Your task to perform on an android device: Open calendar and show me the first week of next month Image 0: 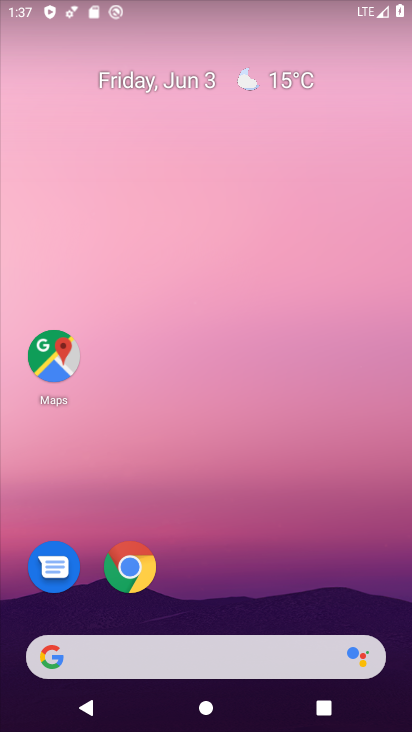
Step 0: drag from (170, 635) to (227, 151)
Your task to perform on an android device: Open calendar and show me the first week of next month Image 1: 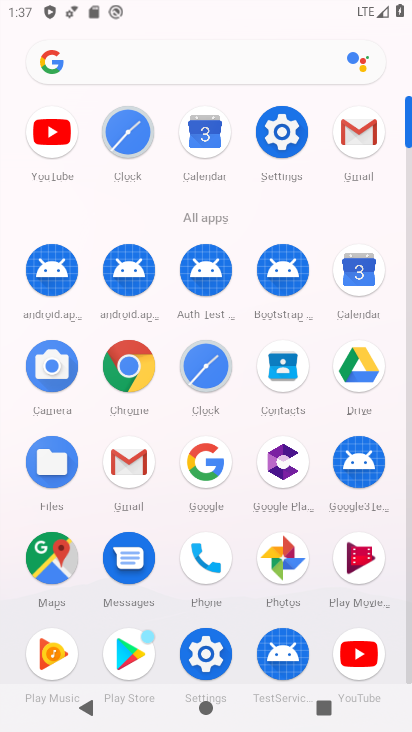
Step 1: click (203, 143)
Your task to perform on an android device: Open calendar and show me the first week of next month Image 2: 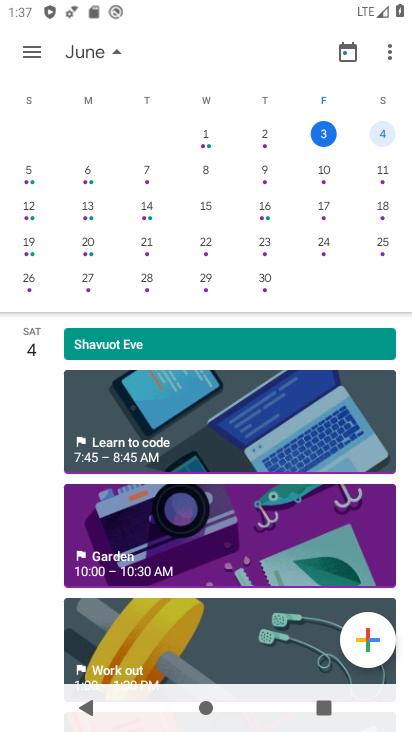
Step 2: click (336, 260)
Your task to perform on an android device: Open calendar and show me the first week of next month Image 3: 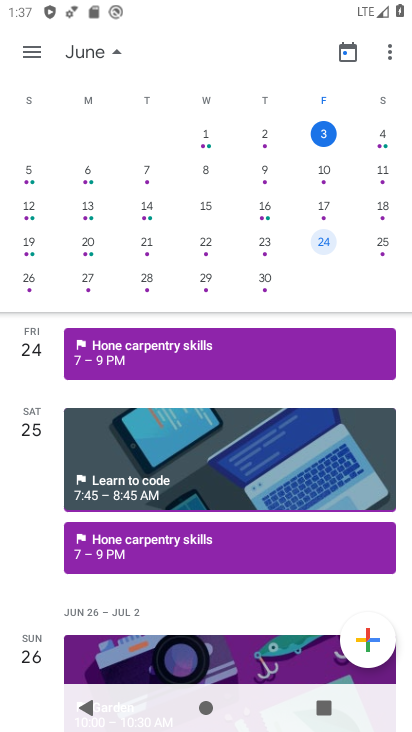
Step 3: drag from (331, 214) to (16, 225)
Your task to perform on an android device: Open calendar and show me the first week of next month Image 4: 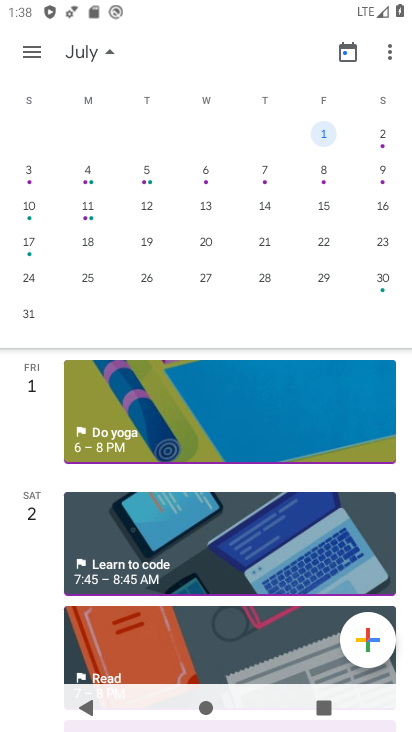
Step 4: click (328, 131)
Your task to perform on an android device: Open calendar and show me the first week of next month Image 5: 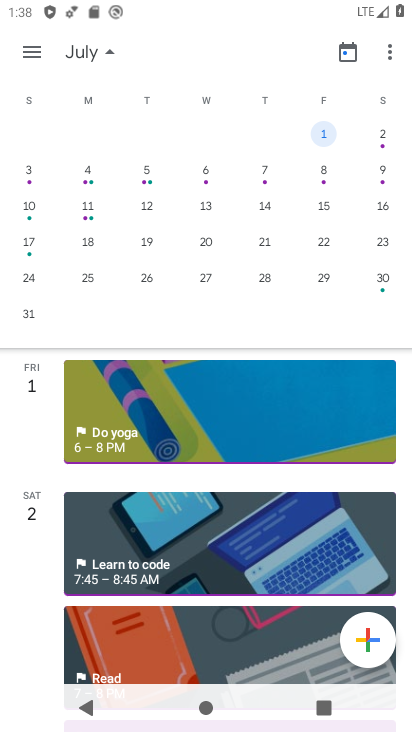
Step 5: task complete